Your task to perform on an android device: find photos in the google photos app Image 0: 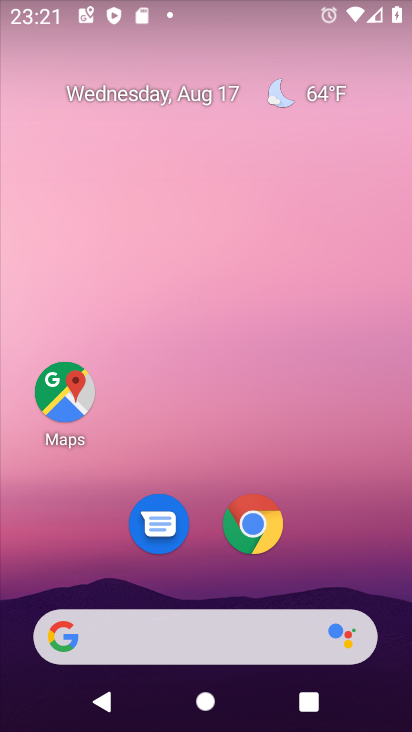
Step 0: drag from (314, 527) to (318, 23)
Your task to perform on an android device: find photos in the google photos app Image 1: 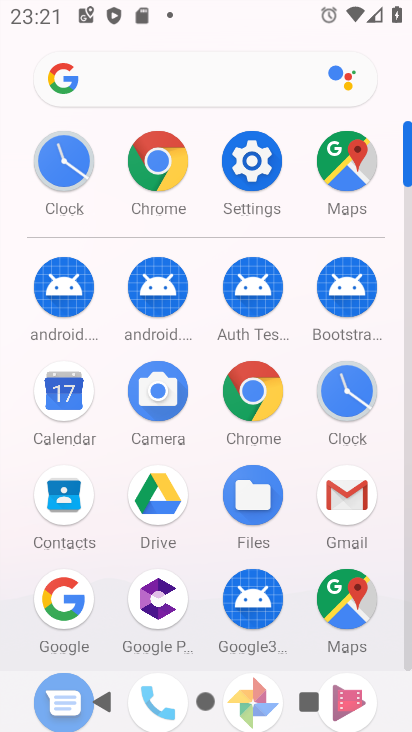
Step 1: drag from (204, 491) to (198, 256)
Your task to perform on an android device: find photos in the google photos app Image 2: 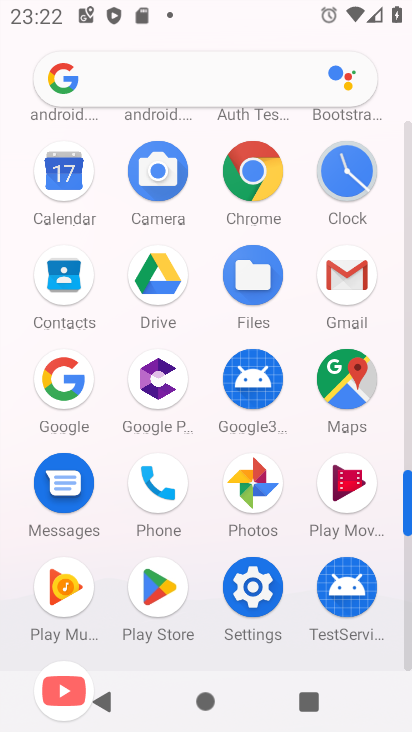
Step 2: click (260, 487)
Your task to perform on an android device: find photos in the google photos app Image 3: 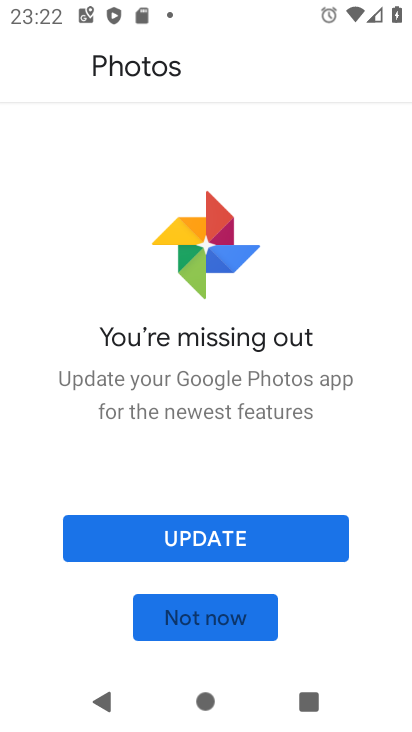
Step 3: click (256, 616)
Your task to perform on an android device: find photos in the google photos app Image 4: 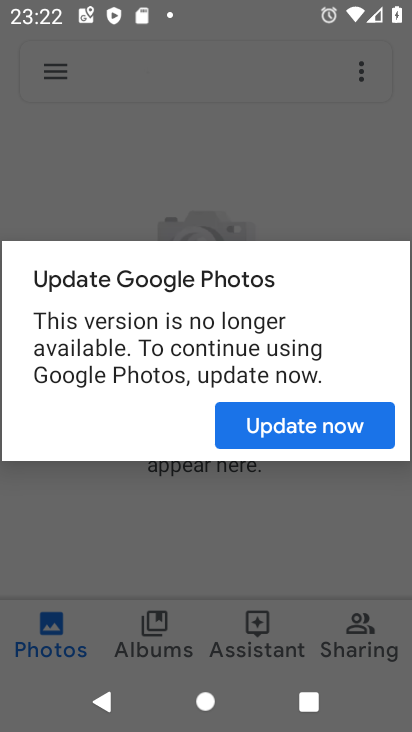
Step 4: click (301, 435)
Your task to perform on an android device: find photos in the google photos app Image 5: 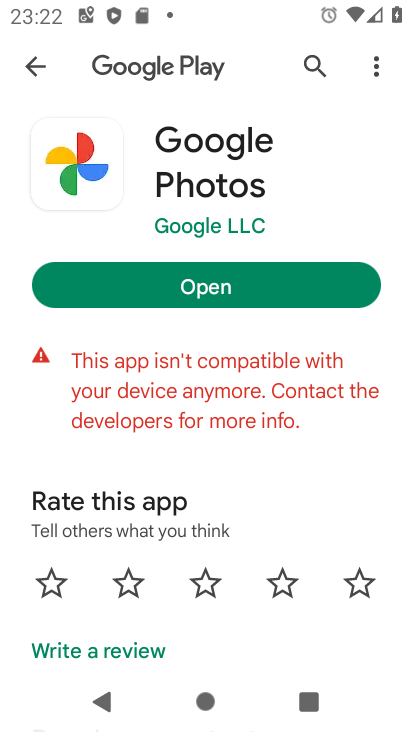
Step 5: click (299, 281)
Your task to perform on an android device: find photos in the google photos app Image 6: 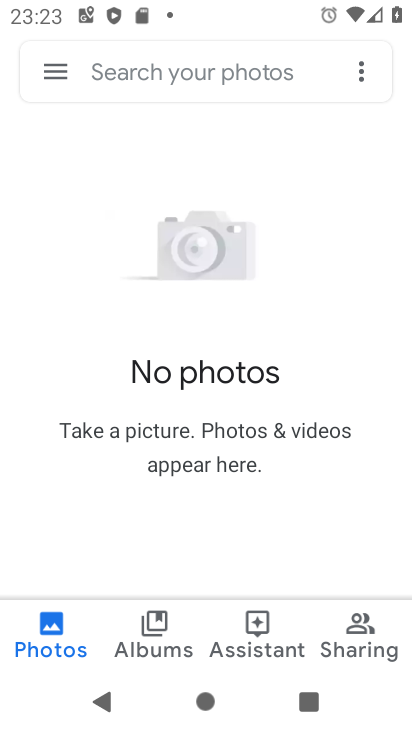
Step 6: task complete